Your task to perform on an android device: allow notifications from all sites in the chrome app Image 0: 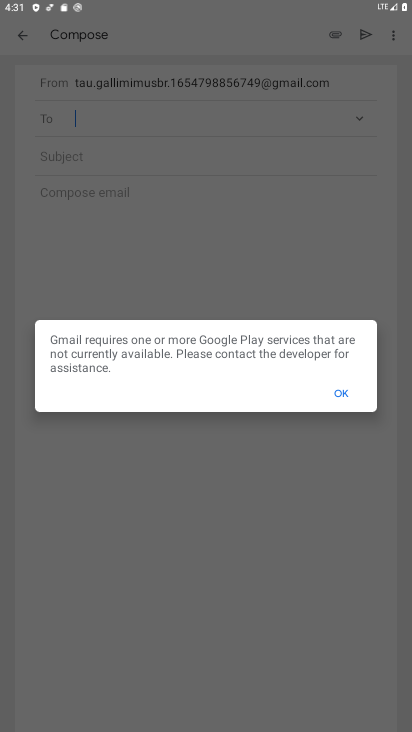
Step 0: press home button
Your task to perform on an android device: allow notifications from all sites in the chrome app Image 1: 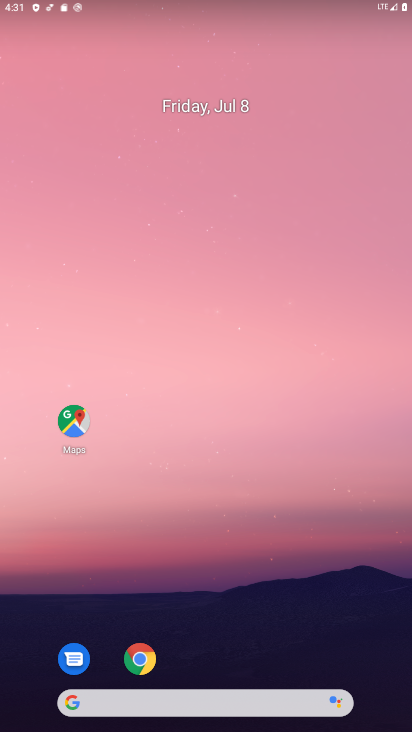
Step 1: drag from (386, 620) to (314, 0)
Your task to perform on an android device: allow notifications from all sites in the chrome app Image 2: 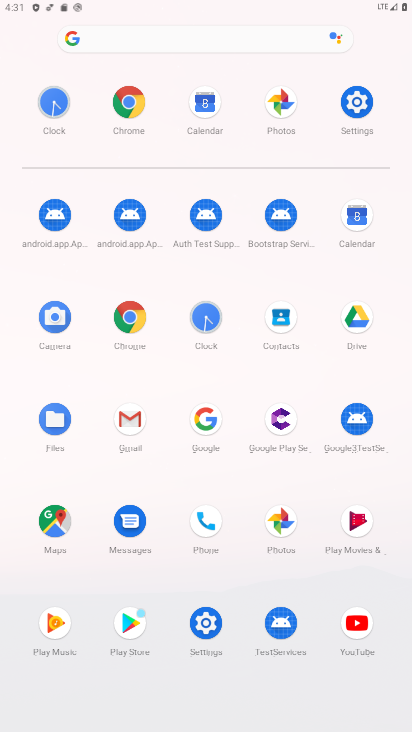
Step 2: click (133, 125)
Your task to perform on an android device: allow notifications from all sites in the chrome app Image 3: 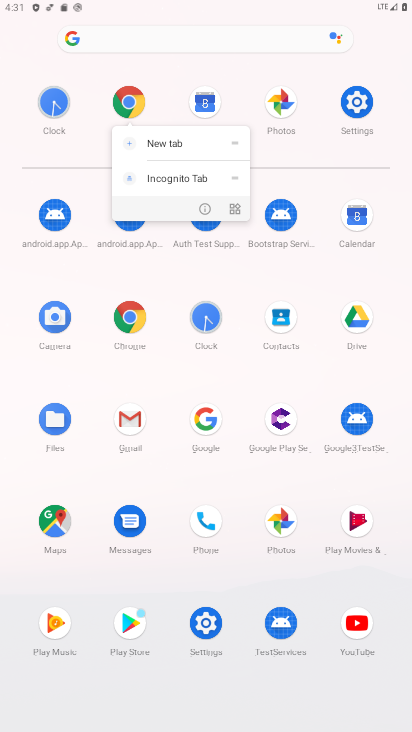
Step 3: click (201, 212)
Your task to perform on an android device: allow notifications from all sites in the chrome app Image 4: 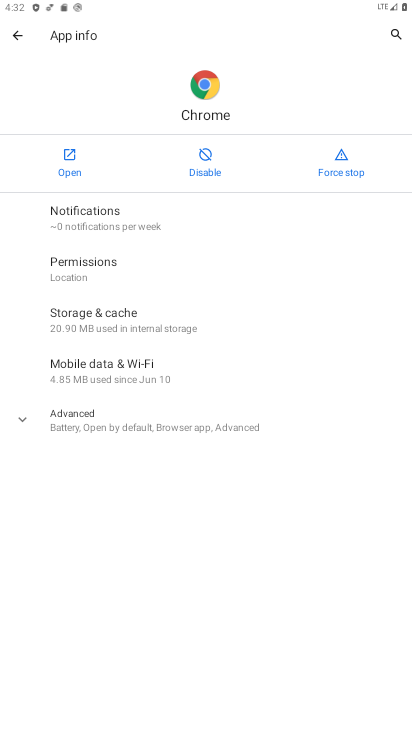
Step 4: click (85, 263)
Your task to perform on an android device: allow notifications from all sites in the chrome app Image 5: 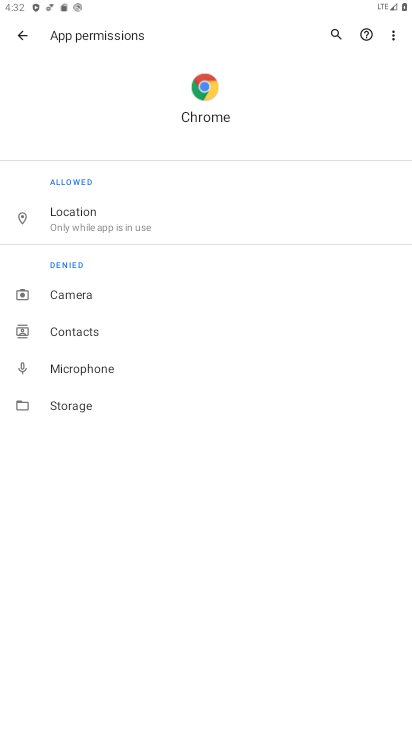
Step 5: click (115, 381)
Your task to perform on an android device: allow notifications from all sites in the chrome app Image 6: 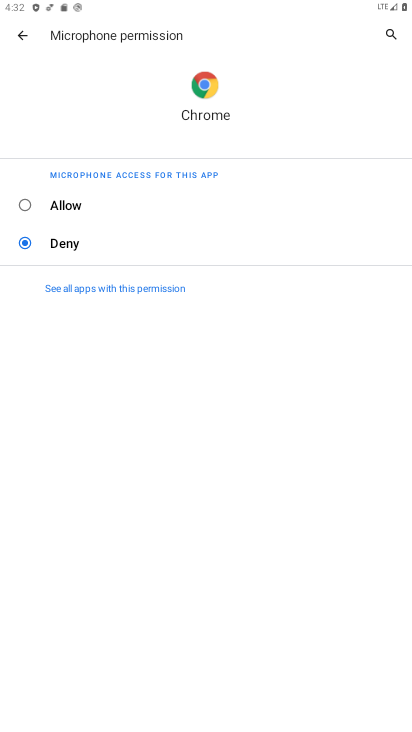
Step 6: click (65, 214)
Your task to perform on an android device: allow notifications from all sites in the chrome app Image 7: 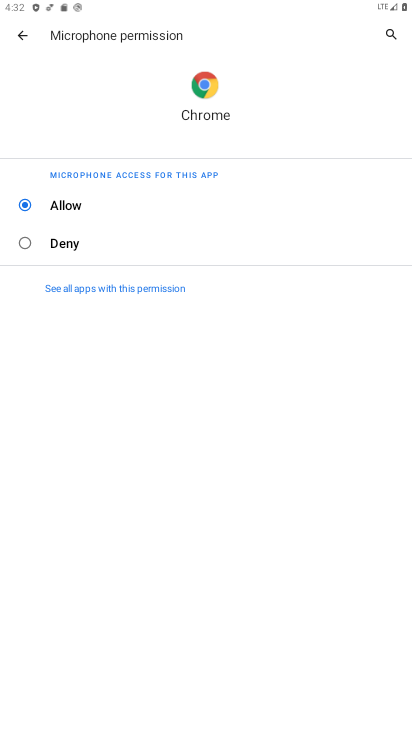
Step 7: click (20, 36)
Your task to perform on an android device: allow notifications from all sites in the chrome app Image 8: 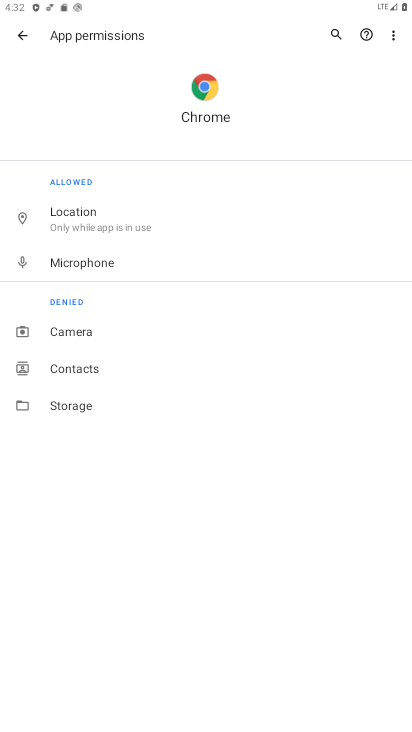
Step 8: click (62, 324)
Your task to perform on an android device: allow notifications from all sites in the chrome app Image 9: 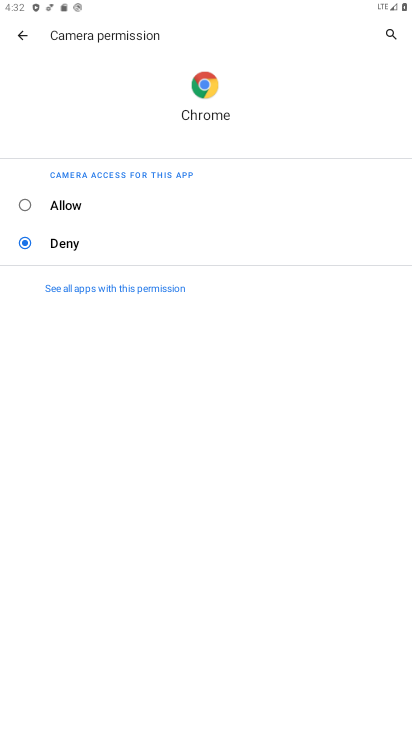
Step 9: click (63, 204)
Your task to perform on an android device: allow notifications from all sites in the chrome app Image 10: 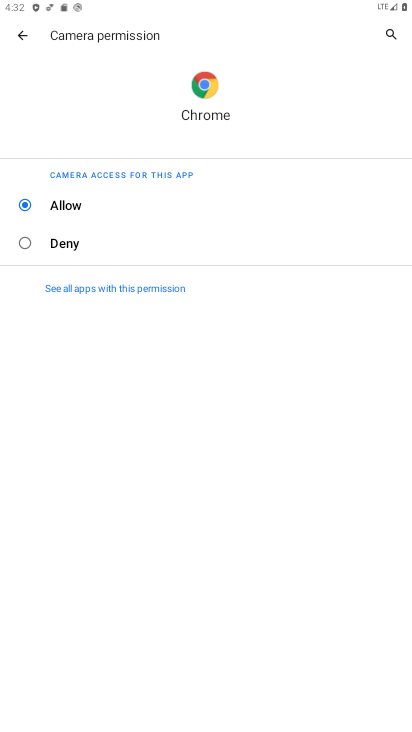
Step 10: click (19, 28)
Your task to perform on an android device: allow notifications from all sites in the chrome app Image 11: 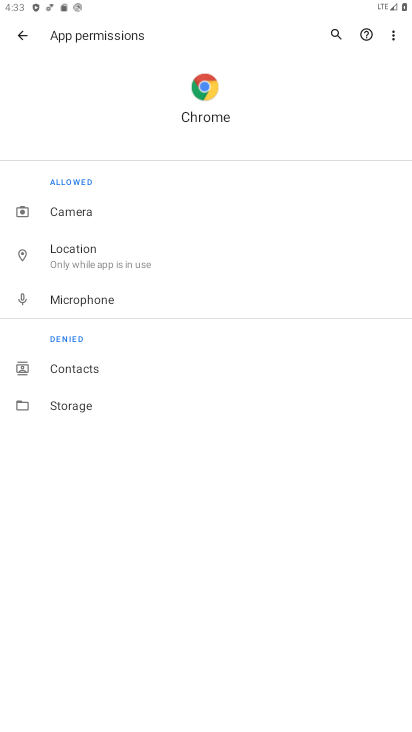
Step 11: click (91, 382)
Your task to perform on an android device: allow notifications from all sites in the chrome app Image 12: 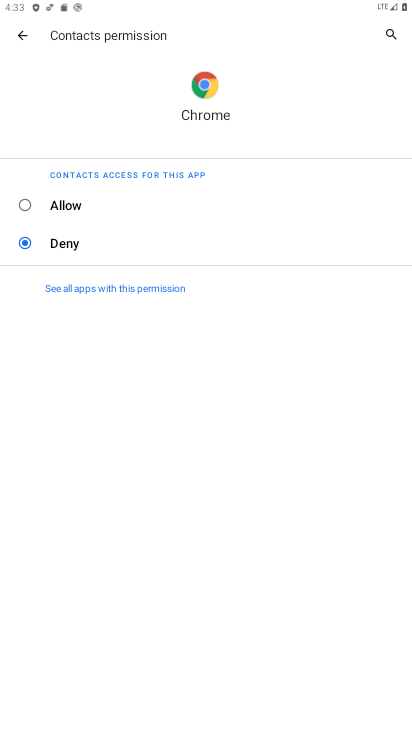
Step 12: click (60, 209)
Your task to perform on an android device: allow notifications from all sites in the chrome app Image 13: 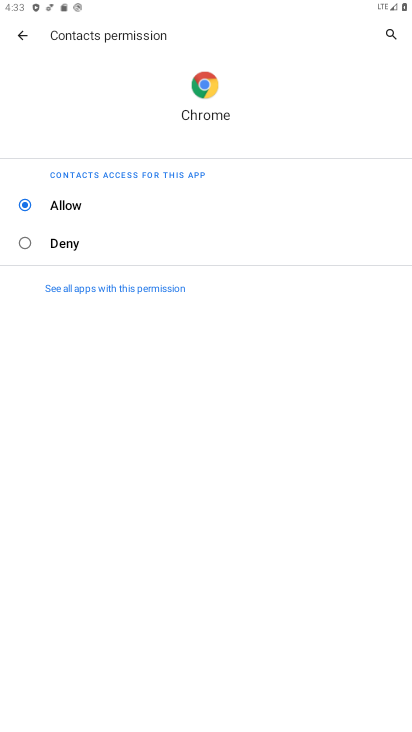
Step 13: click (30, 39)
Your task to perform on an android device: allow notifications from all sites in the chrome app Image 14: 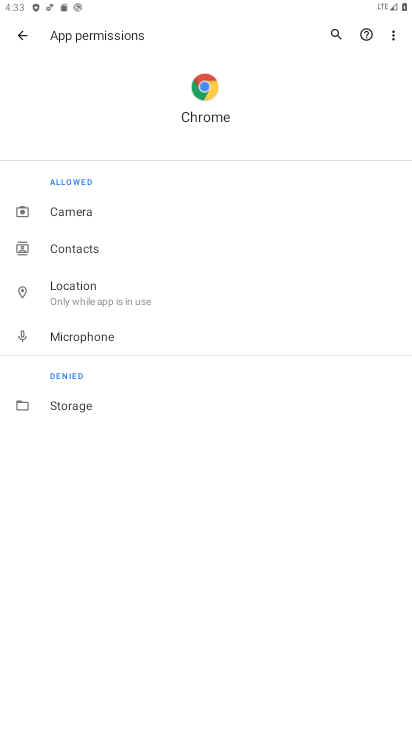
Step 14: click (54, 408)
Your task to perform on an android device: allow notifications from all sites in the chrome app Image 15: 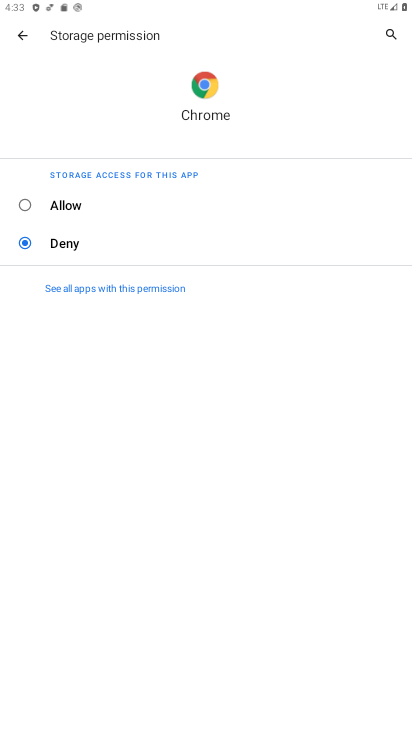
Step 15: click (22, 214)
Your task to perform on an android device: allow notifications from all sites in the chrome app Image 16: 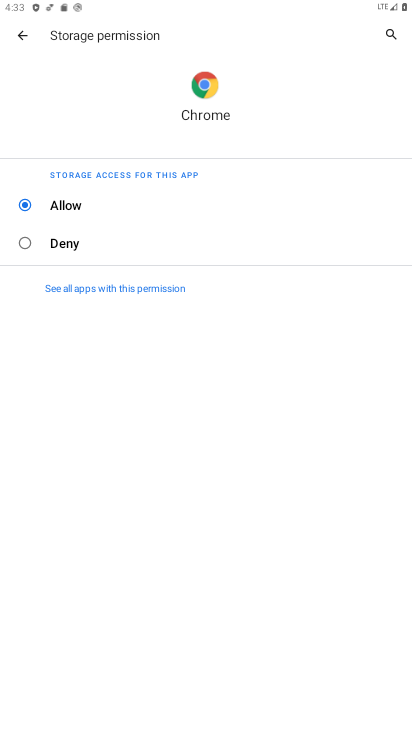
Step 16: click (25, 33)
Your task to perform on an android device: allow notifications from all sites in the chrome app Image 17: 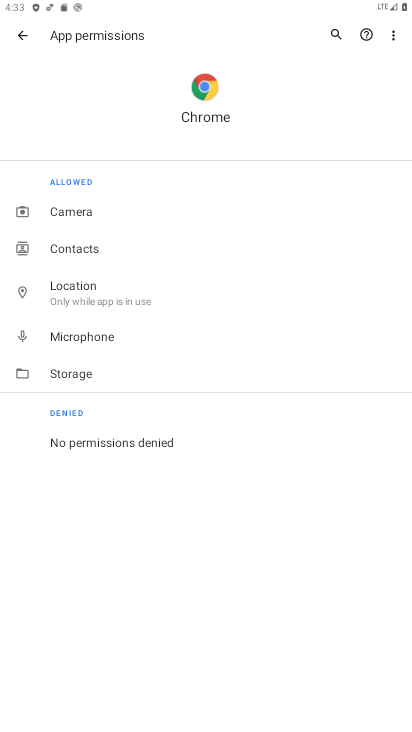
Step 17: task complete